Your task to perform on an android device: turn on translation in the chrome app Image 0: 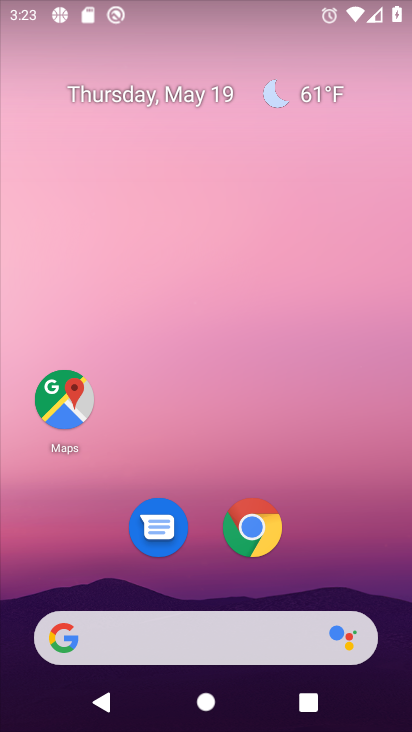
Step 0: click (262, 523)
Your task to perform on an android device: turn on translation in the chrome app Image 1: 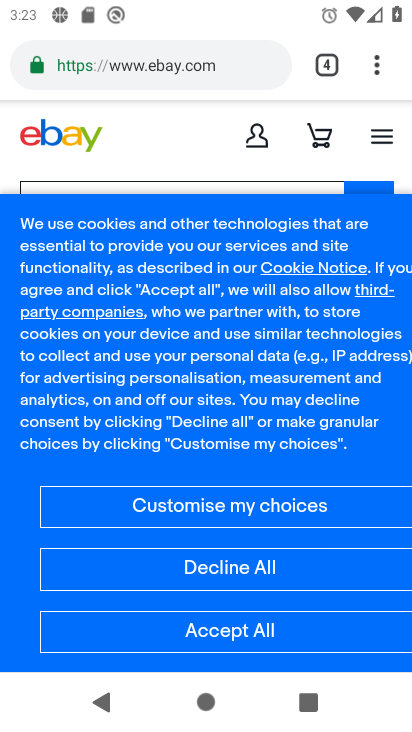
Step 1: drag from (376, 56) to (149, 573)
Your task to perform on an android device: turn on translation in the chrome app Image 2: 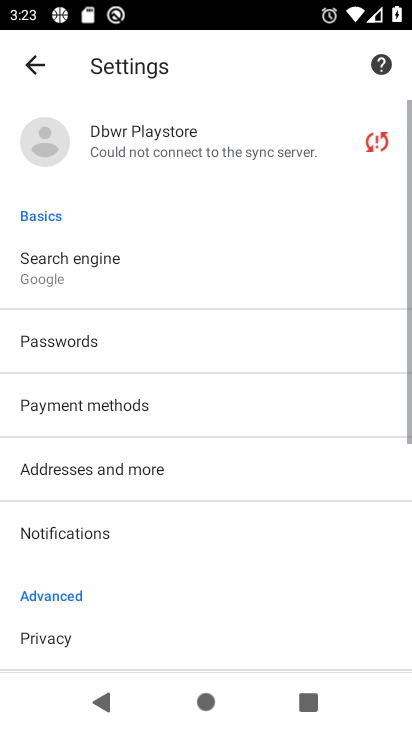
Step 2: drag from (143, 570) to (228, 96)
Your task to perform on an android device: turn on translation in the chrome app Image 3: 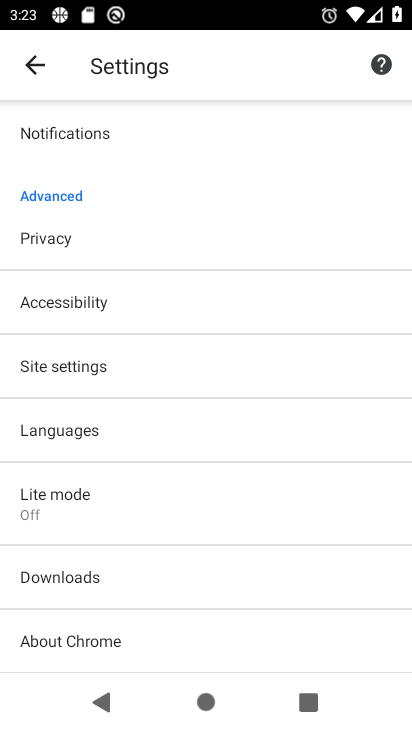
Step 3: click (91, 435)
Your task to perform on an android device: turn on translation in the chrome app Image 4: 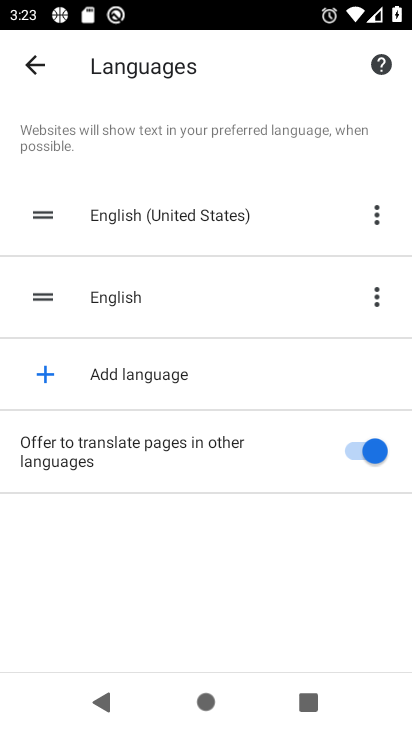
Step 4: task complete